Your task to perform on an android device: What's the weather going to be tomorrow? Image 0: 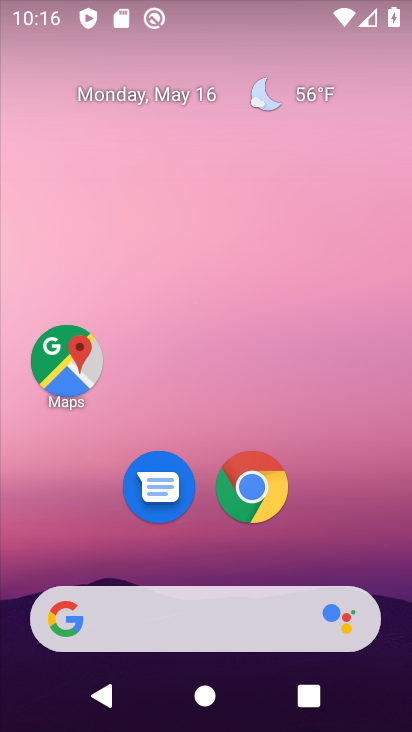
Step 0: drag from (294, 537) to (241, 12)
Your task to perform on an android device: What's the weather going to be tomorrow? Image 1: 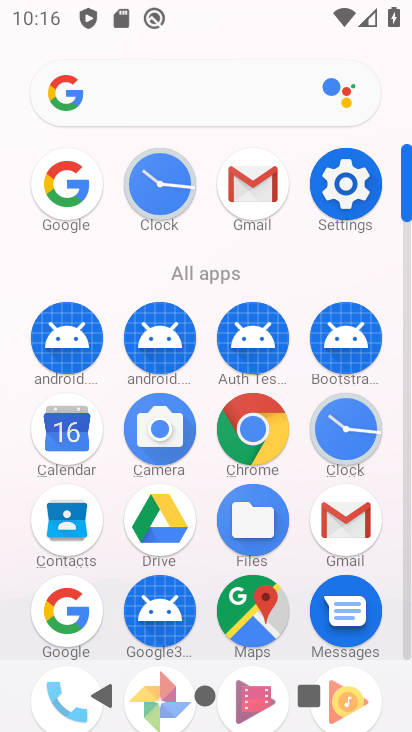
Step 1: click (63, 211)
Your task to perform on an android device: What's the weather going to be tomorrow? Image 2: 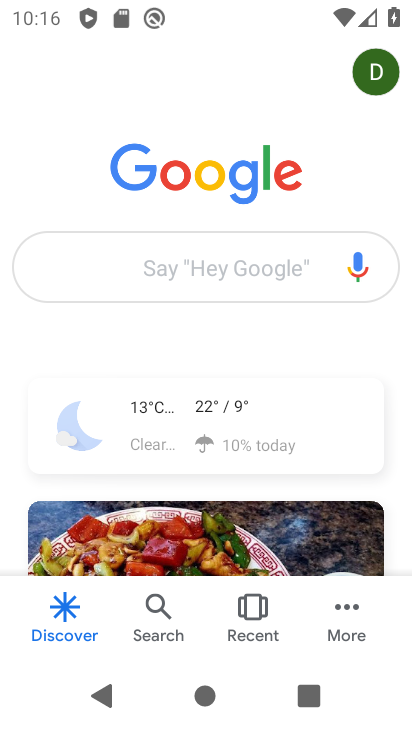
Step 2: click (159, 280)
Your task to perform on an android device: What's the weather going to be tomorrow? Image 3: 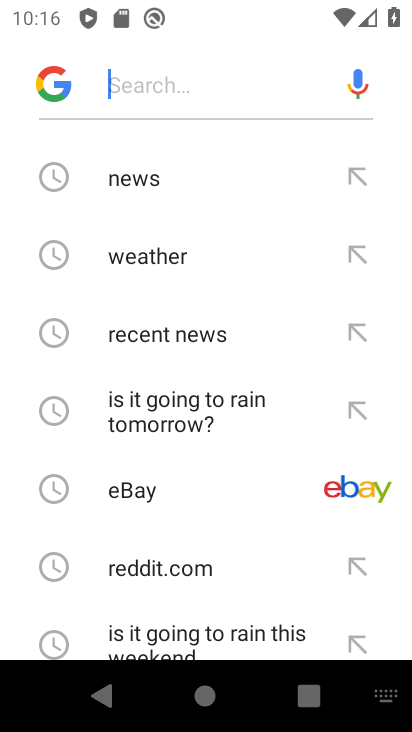
Step 3: click (144, 257)
Your task to perform on an android device: What's the weather going to be tomorrow? Image 4: 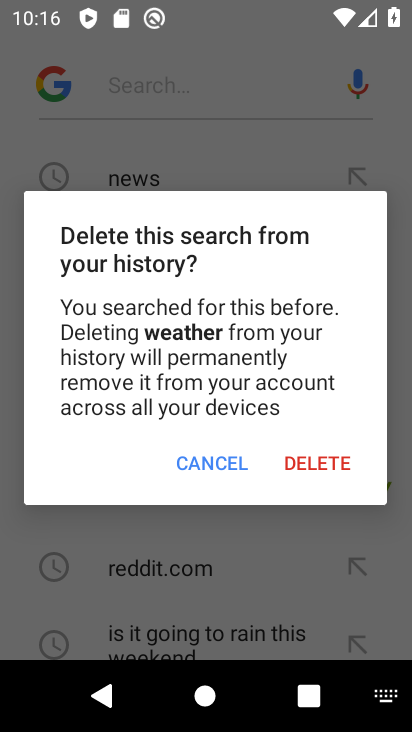
Step 4: click (237, 457)
Your task to perform on an android device: What's the weather going to be tomorrow? Image 5: 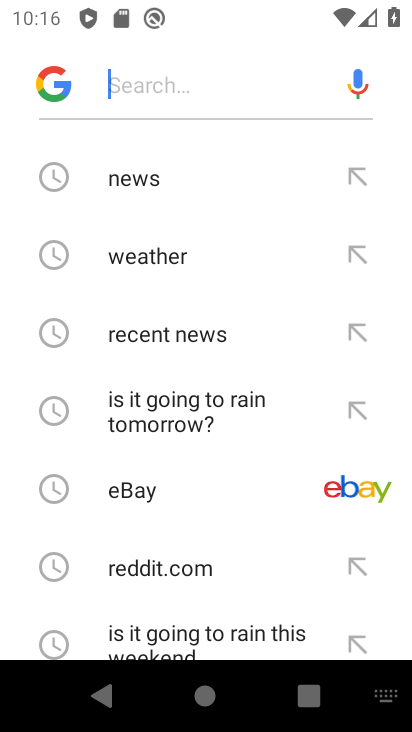
Step 5: click (213, 456)
Your task to perform on an android device: What's the weather going to be tomorrow? Image 6: 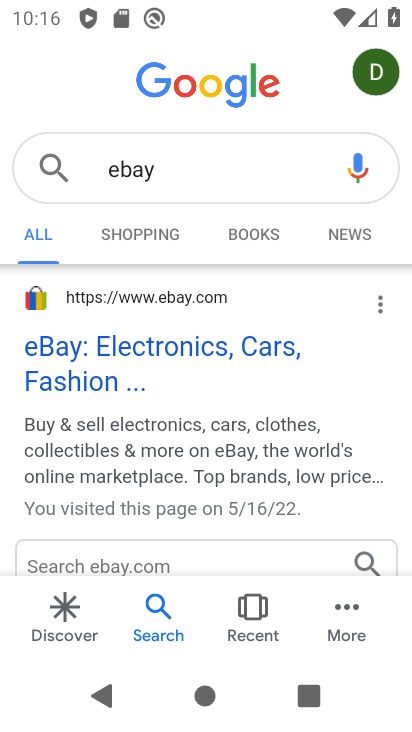
Step 6: press back button
Your task to perform on an android device: What's the weather going to be tomorrow? Image 7: 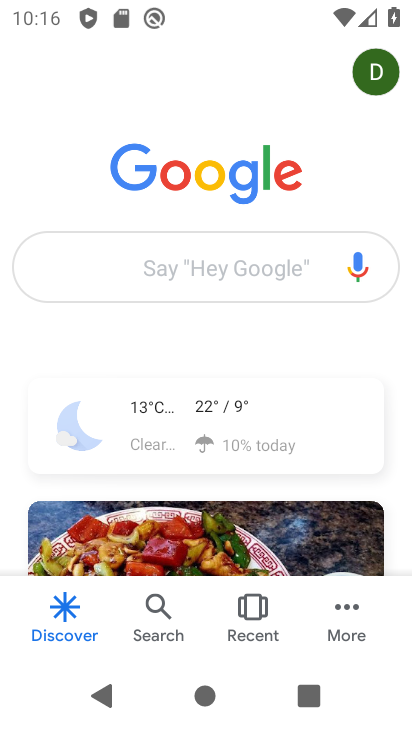
Step 7: click (219, 265)
Your task to perform on an android device: What's the weather going to be tomorrow? Image 8: 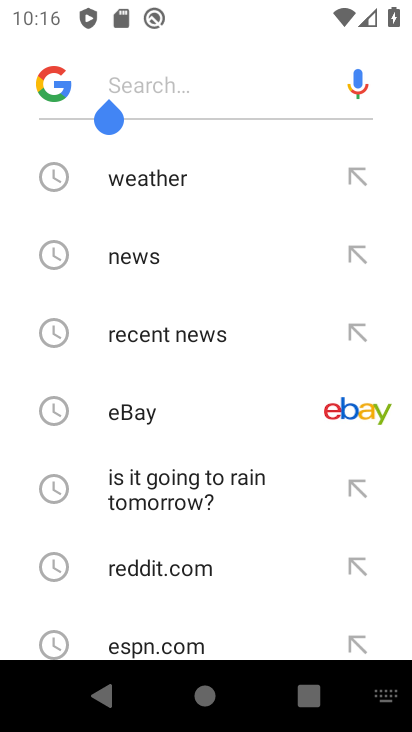
Step 8: click (158, 179)
Your task to perform on an android device: What's the weather going to be tomorrow? Image 9: 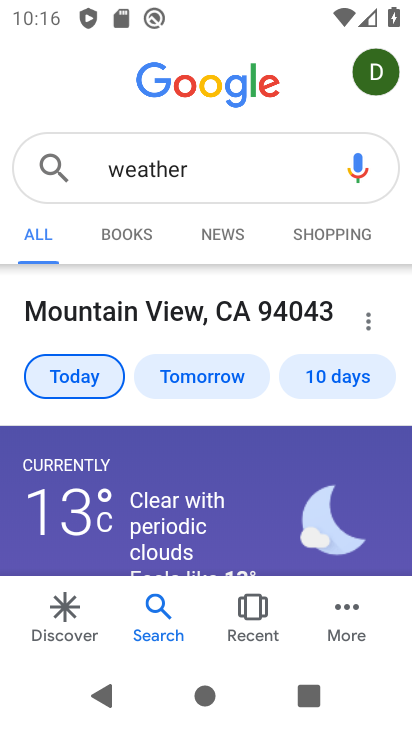
Step 9: task complete